Your task to perform on an android device: Is it going to rain today? Image 0: 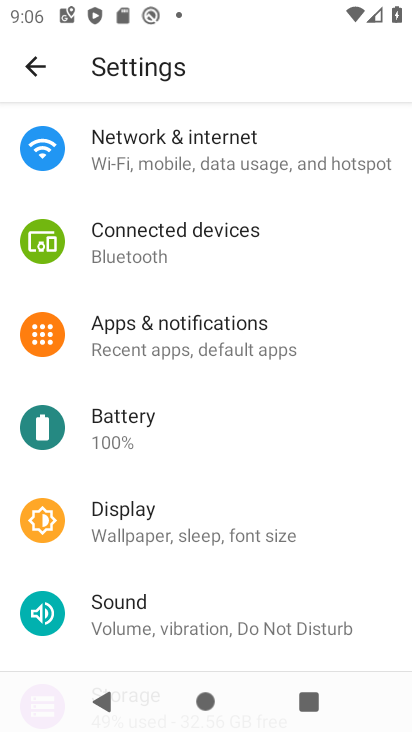
Step 0: press home button
Your task to perform on an android device: Is it going to rain today? Image 1: 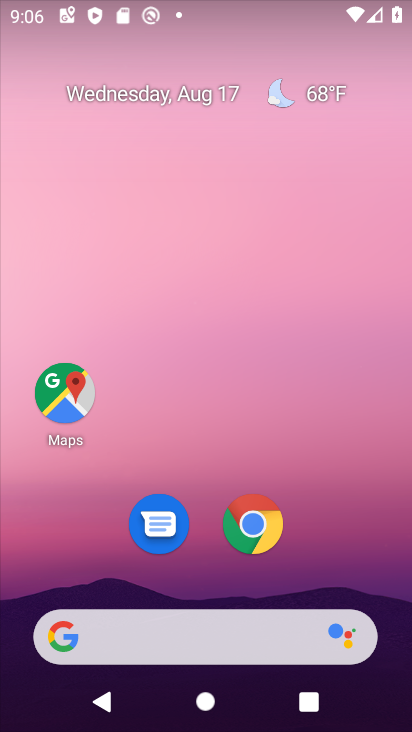
Step 1: click (332, 92)
Your task to perform on an android device: Is it going to rain today? Image 2: 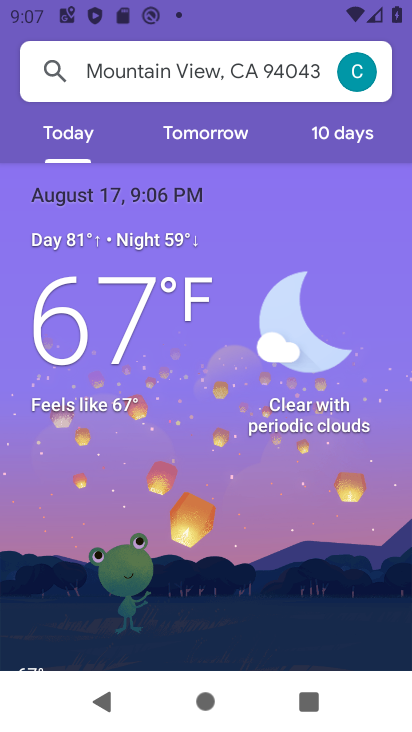
Step 2: task complete